Your task to perform on an android device: Go to network settings Image 0: 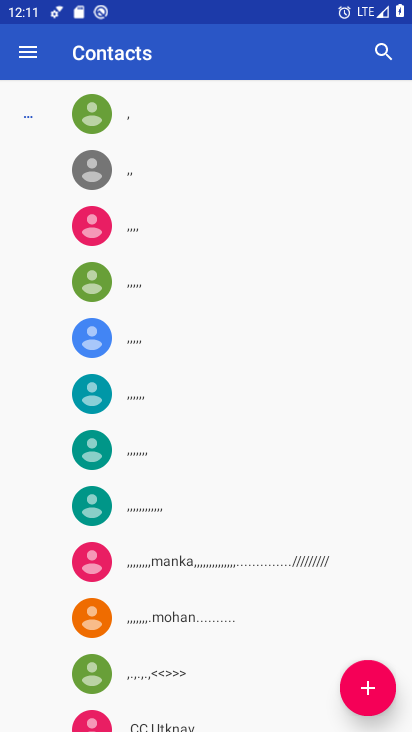
Step 0: press home button
Your task to perform on an android device: Go to network settings Image 1: 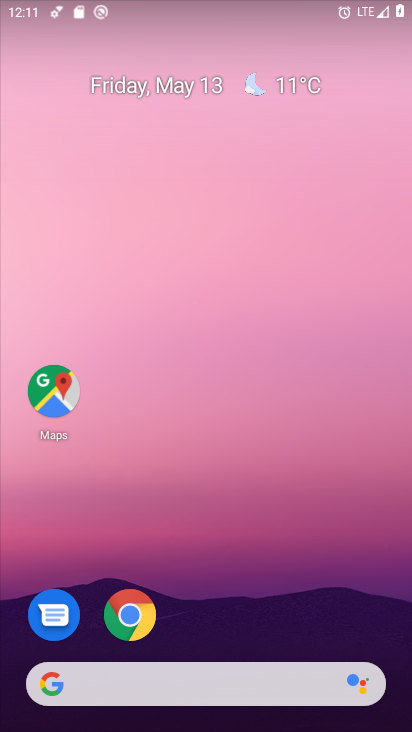
Step 1: drag from (251, 510) to (258, 36)
Your task to perform on an android device: Go to network settings Image 2: 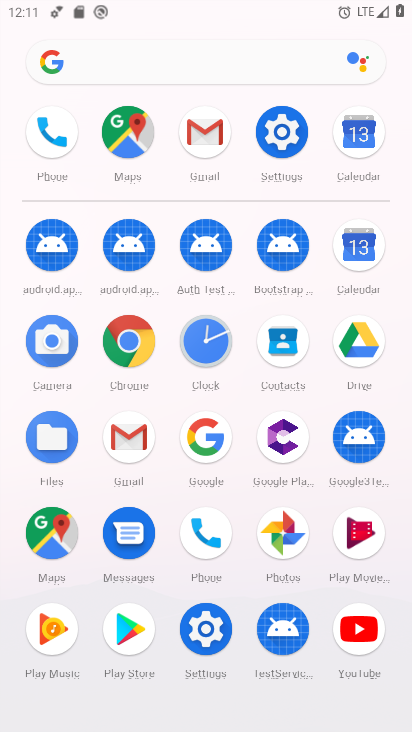
Step 2: click (278, 136)
Your task to perform on an android device: Go to network settings Image 3: 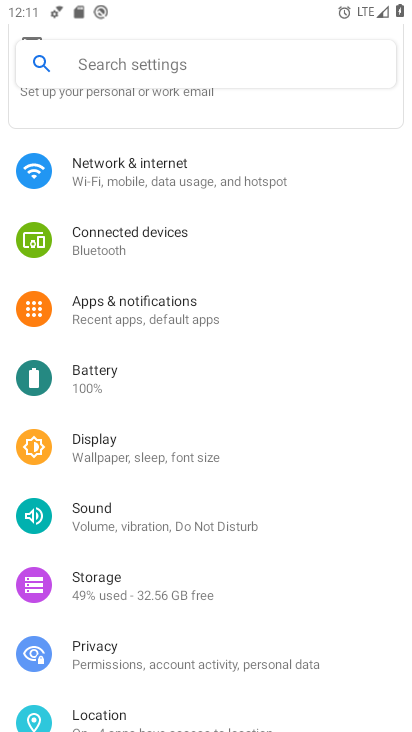
Step 3: click (257, 169)
Your task to perform on an android device: Go to network settings Image 4: 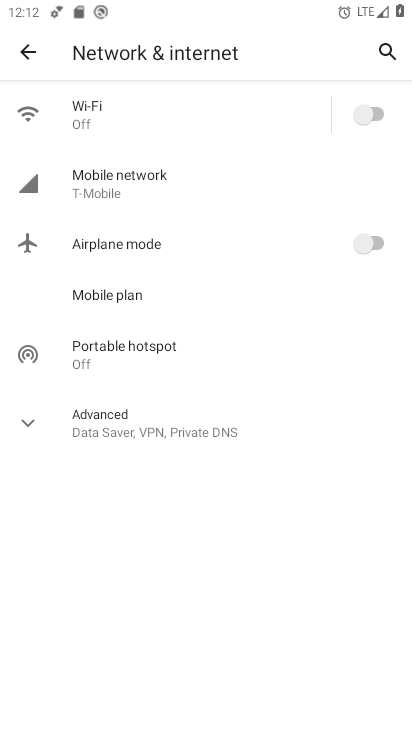
Step 4: task complete